Your task to perform on an android device: Do I have any events today? Image 0: 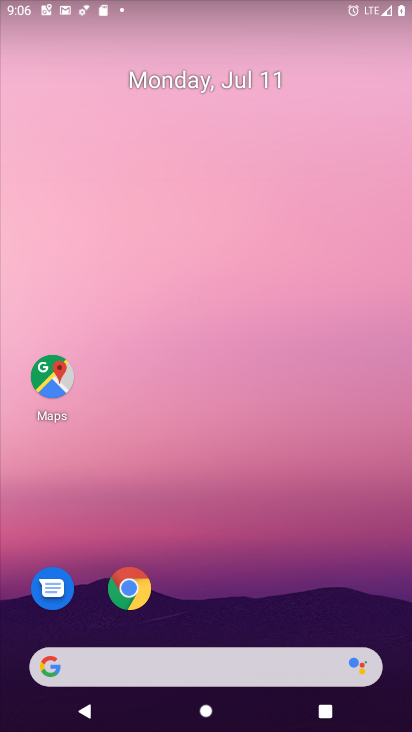
Step 0: press home button
Your task to perform on an android device: Do I have any events today? Image 1: 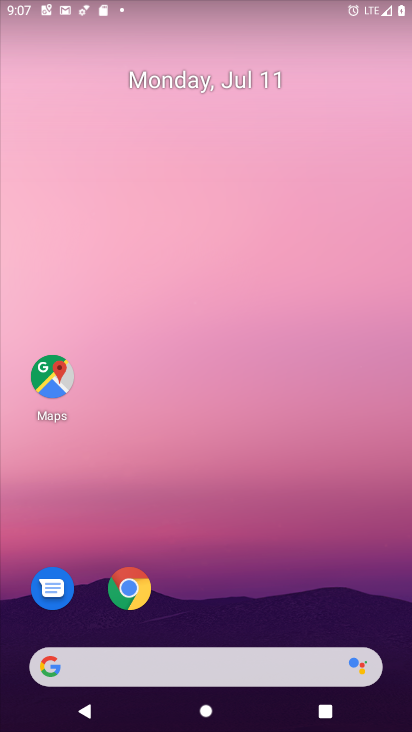
Step 1: drag from (142, 665) to (321, 115)
Your task to perform on an android device: Do I have any events today? Image 2: 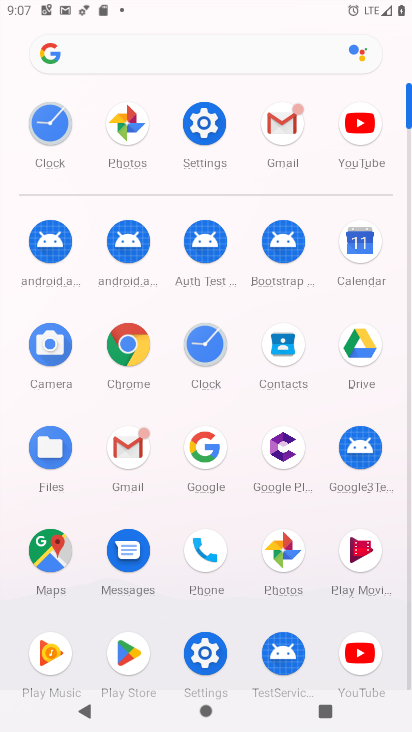
Step 2: click (360, 250)
Your task to perform on an android device: Do I have any events today? Image 3: 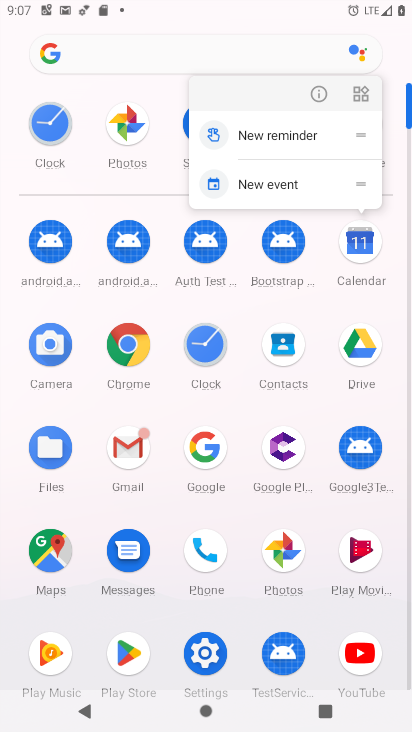
Step 3: click (365, 236)
Your task to perform on an android device: Do I have any events today? Image 4: 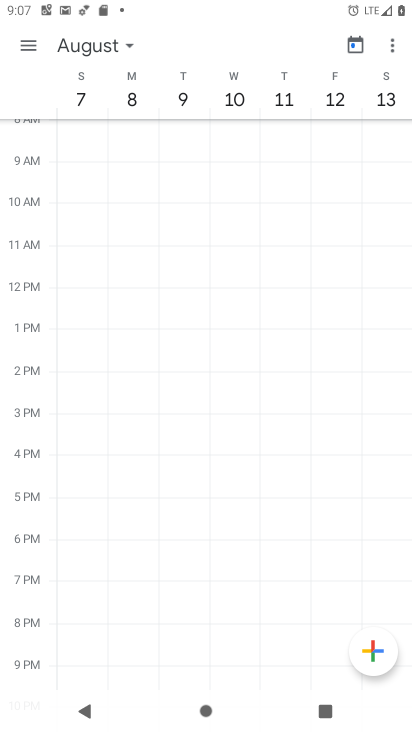
Step 4: click (86, 46)
Your task to perform on an android device: Do I have any events today? Image 5: 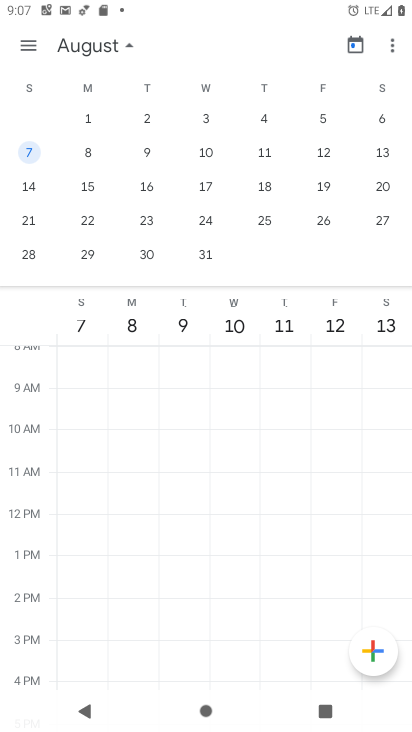
Step 5: drag from (92, 145) to (397, 227)
Your task to perform on an android device: Do I have any events today? Image 6: 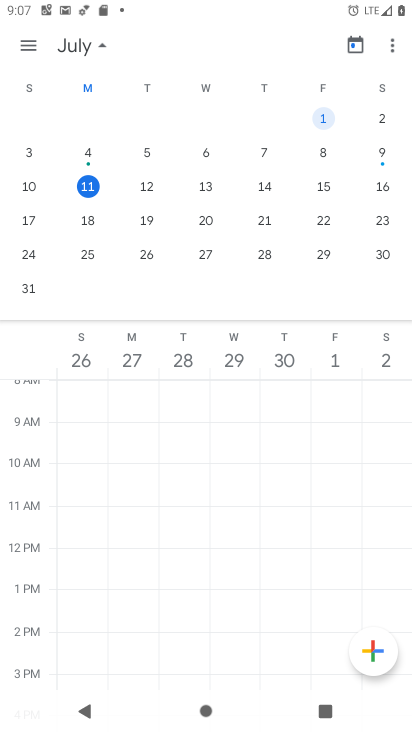
Step 6: click (92, 190)
Your task to perform on an android device: Do I have any events today? Image 7: 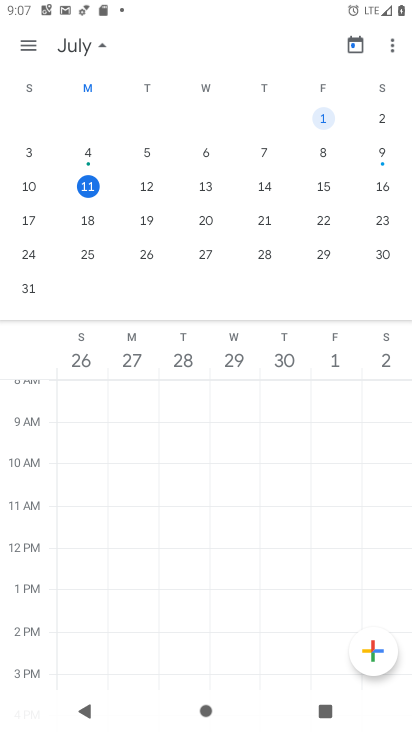
Step 7: click (88, 180)
Your task to perform on an android device: Do I have any events today? Image 8: 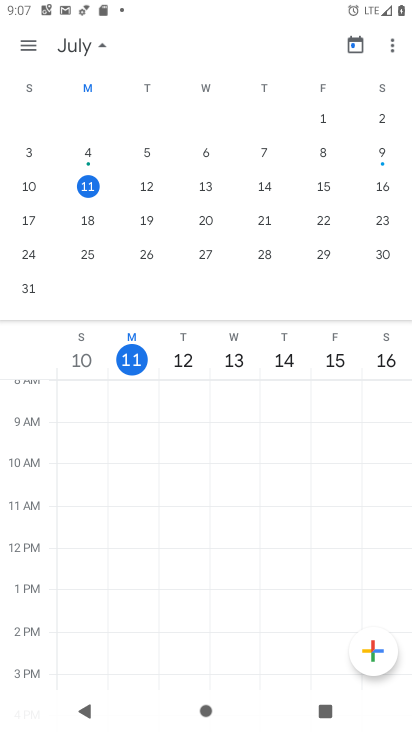
Step 8: click (29, 49)
Your task to perform on an android device: Do I have any events today? Image 9: 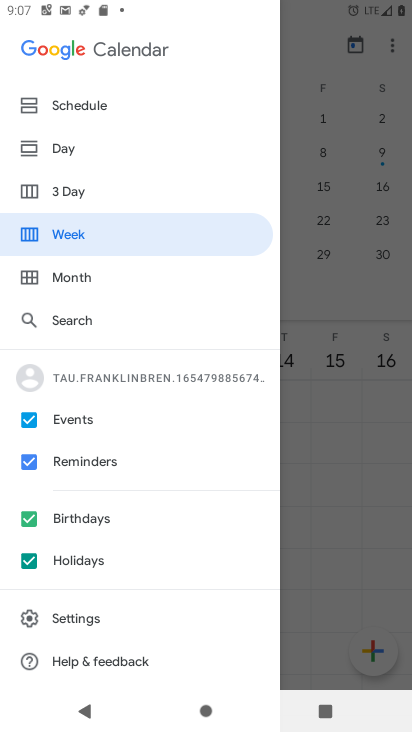
Step 9: click (65, 141)
Your task to perform on an android device: Do I have any events today? Image 10: 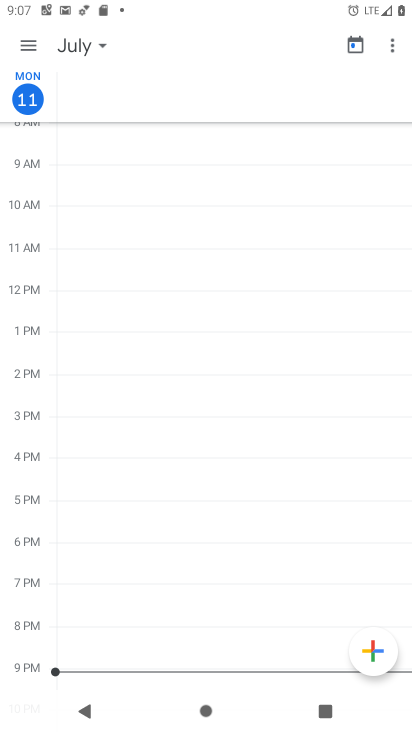
Step 10: click (27, 40)
Your task to perform on an android device: Do I have any events today? Image 11: 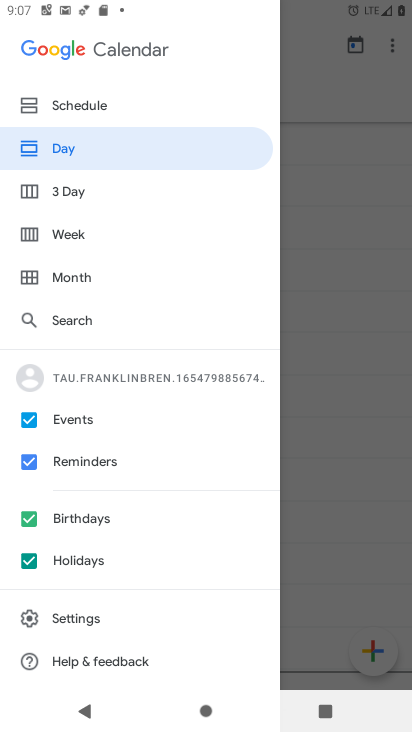
Step 11: click (106, 105)
Your task to perform on an android device: Do I have any events today? Image 12: 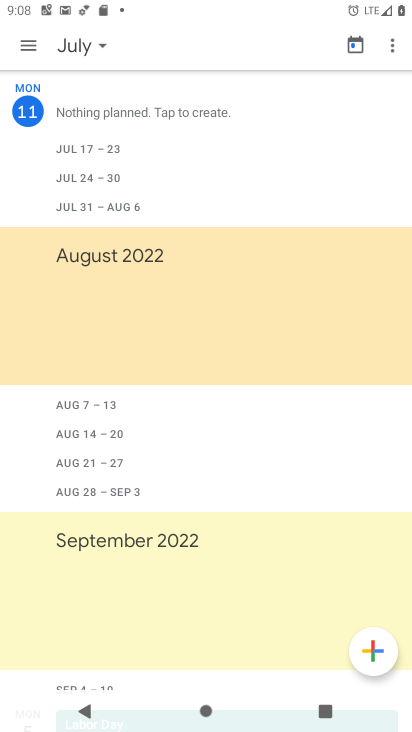
Step 12: task complete